Your task to perform on an android device: Show me popular games on the Play Store Image 0: 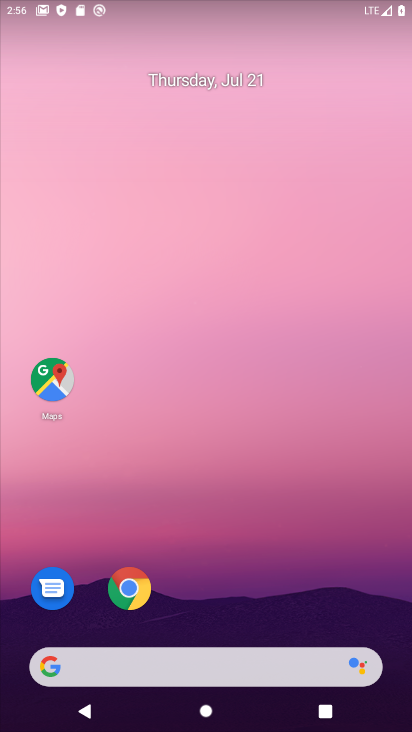
Step 0: drag from (209, 627) to (293, 53)
Your task to perform on an android device: Show me popular games on the Play Store Image 1: 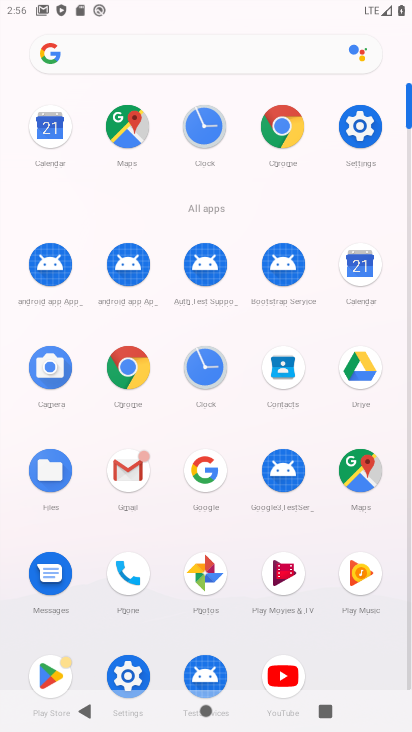
Step 1: click (42, 674)
Your task to perform on an android device: Show me popular games on the Play Store Image 2: 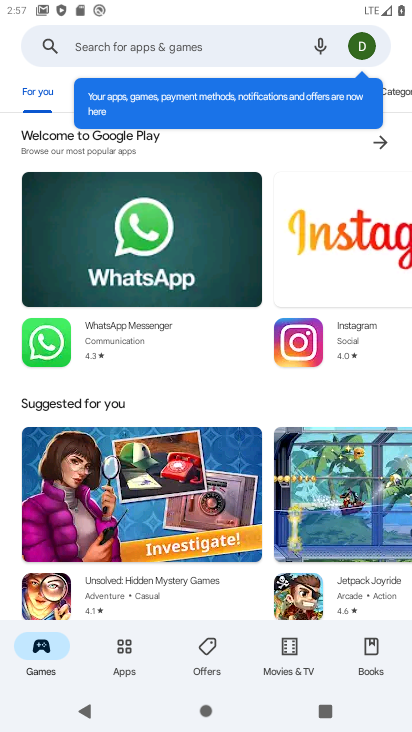
Step 2: click (45, 90)
Your task to perform on an android device: Show me popular games on the Play Store Image 3: 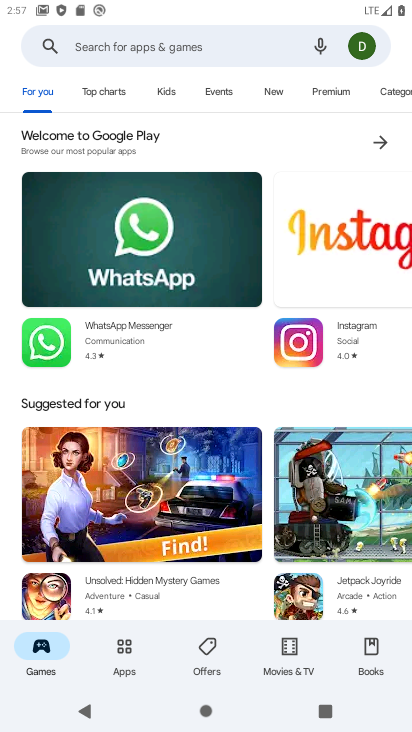
Step 3: click (101, 93)
Your task to perform on an android device: Show me popular games on the Play Store Image 4: 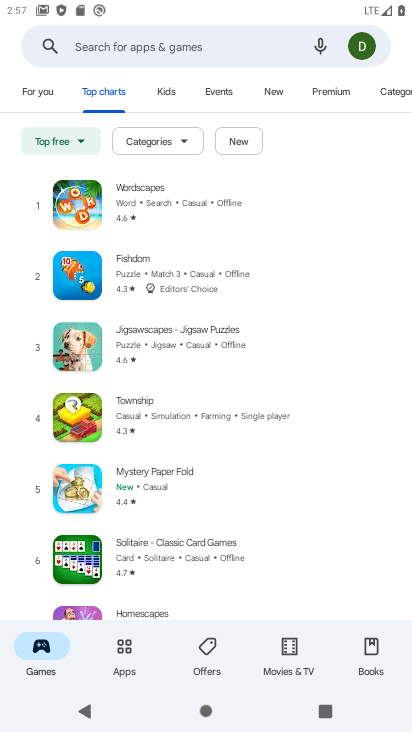
Step 4: task complete